Your task to perform on an android device: toggle pop-ups in chrome Image 0: 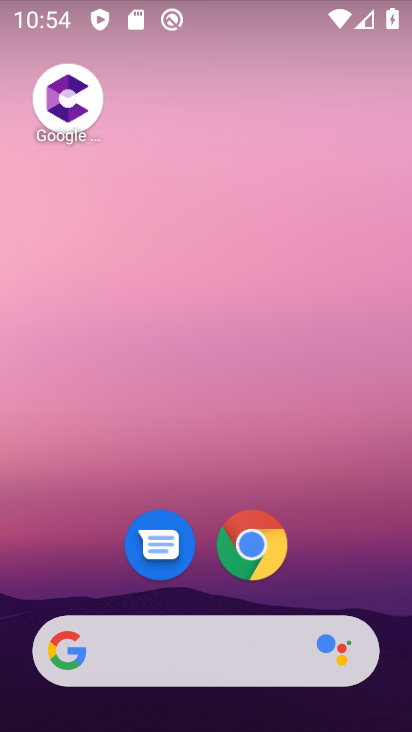
Step 0: click (251, 567)
Your task to perform on an android device: toggle pop-ups in chrome Image 1: 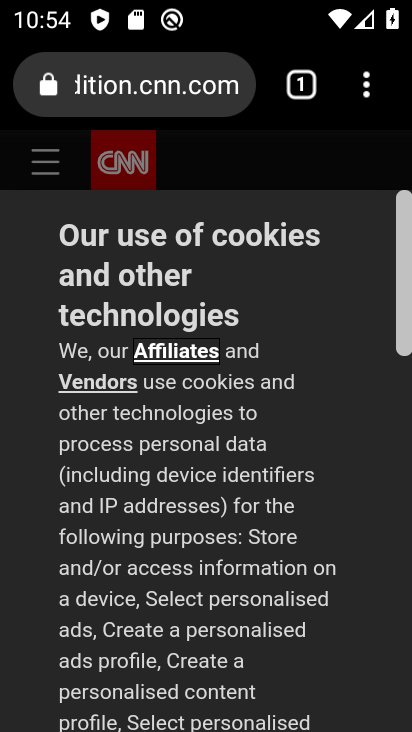
Step 1: click (363, 95)
Your task to perform on an android device: toggle pop-ups in chrome Image 2: 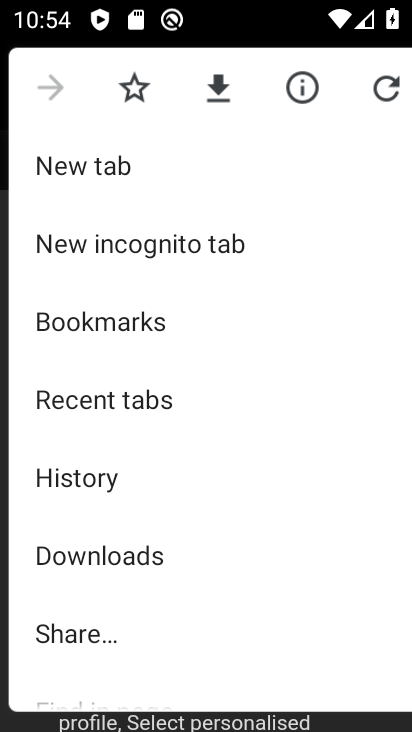
Step 2: press back button
Your task to perform on an android device: toggle pop-ups in chrome Image 3: 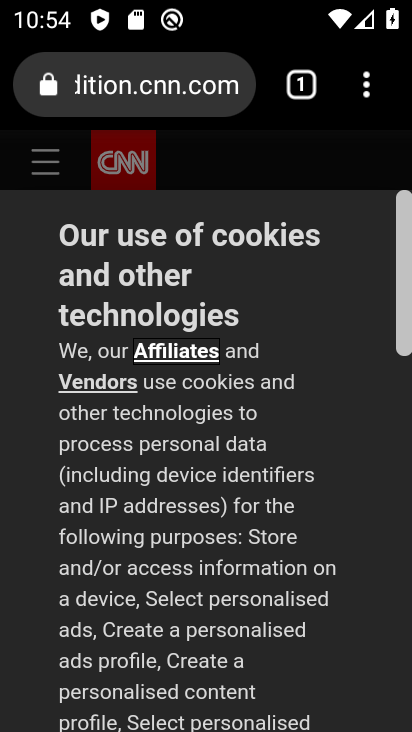
Step 3: click (364, 102)
Your task to perform on an android device: toggle pop-ups in chrome Image 4: 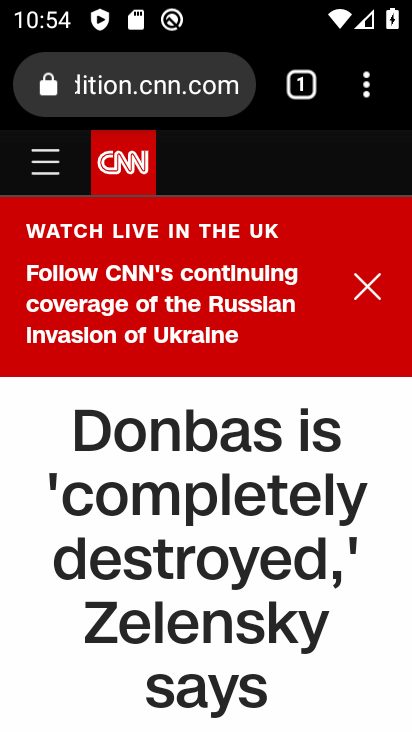
Step 4: click (375, 91)
Your task to perform on an android device: toggle pop-ups in chrome Image 5: 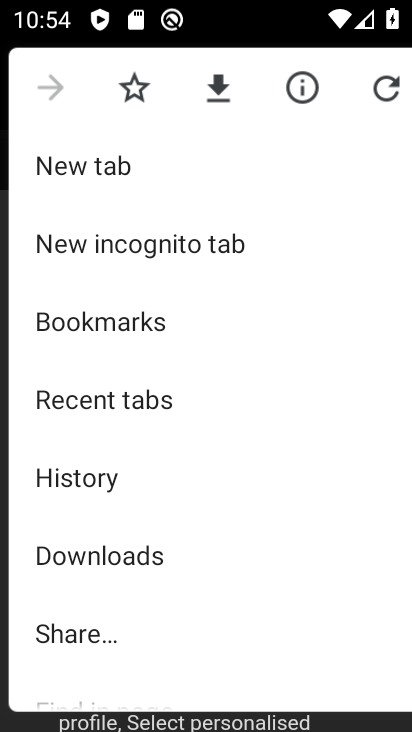
Step 5: drag from (173, 603) to (209, 129)
Your task to perform on an android device: toggle pop-ups in chrome Image 6: 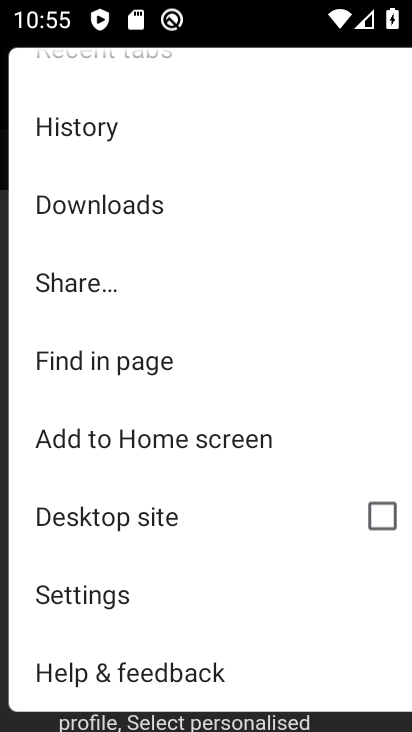
Step 6: click (102, 597)
Your task to perform on an android device: toggle pop-ups in chrome Image 7: 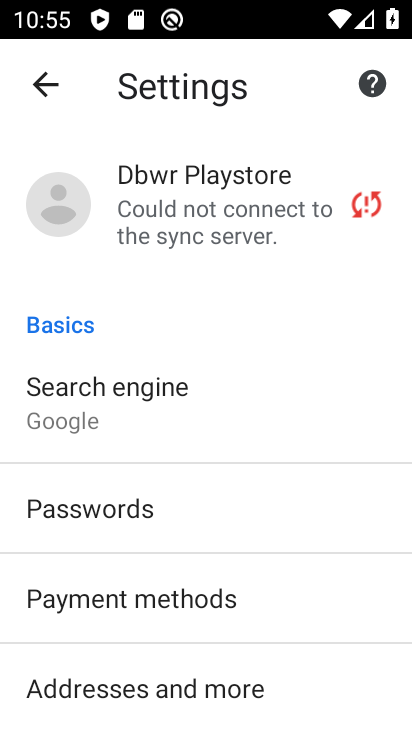
Step 7: drag from (136, 671) to (298, 27)
Your task to perform on an android device: toggle pop-ups in chrome Image 8: 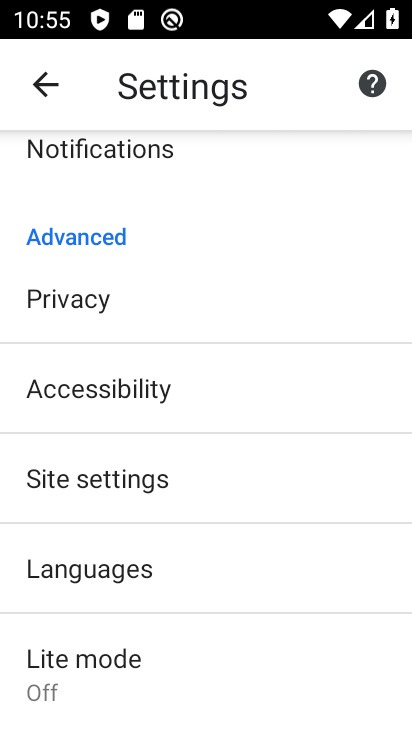
Step 8: drag from (114, 681) to (176, 194)
Your task to perform on an android device: toggle pop-ups in chrome Image 9: 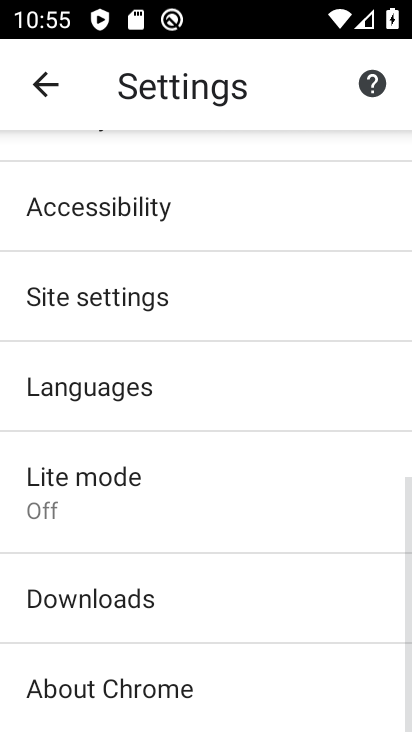
Step 9: drag from (92, 707) to (160, 357)
Your task to perform on an android device: toggle pop-ups in chrome Image 10: 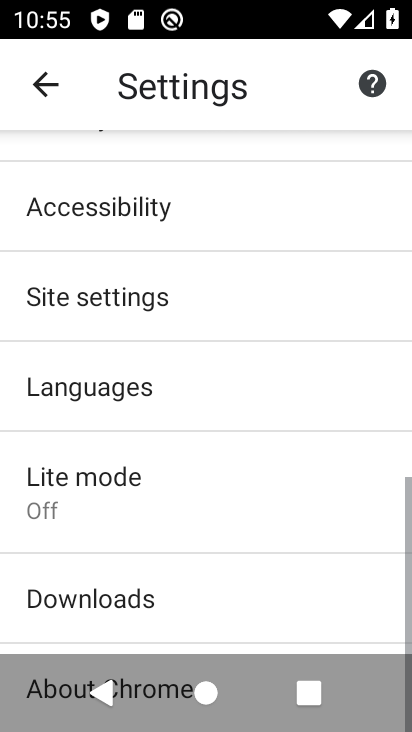
Step 10: click (136, 302)
Your task to perform on an android device: toggle pop-ups in chrome Image 11: 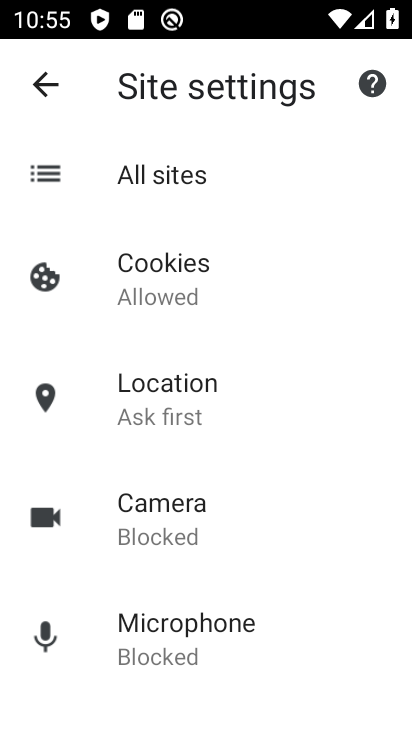
Step 11: drag from (210, 642) to (234, 190)
Your task to perform on an android device: toggle pop-ups in chrome Image 12: 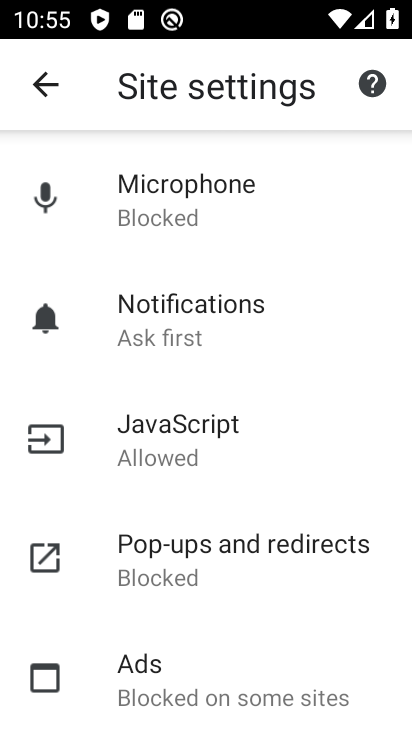
Step 12: click (204, 556)
Your task to perform on an android device: toggle pop-ups in chrome Image 13: 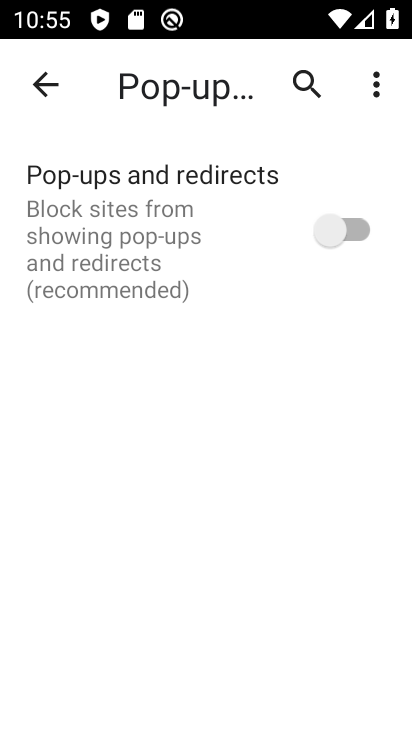
Step 13: click (364, 237)
Your task to perform on an android device: toggle pop-ups in chrome Image 14: 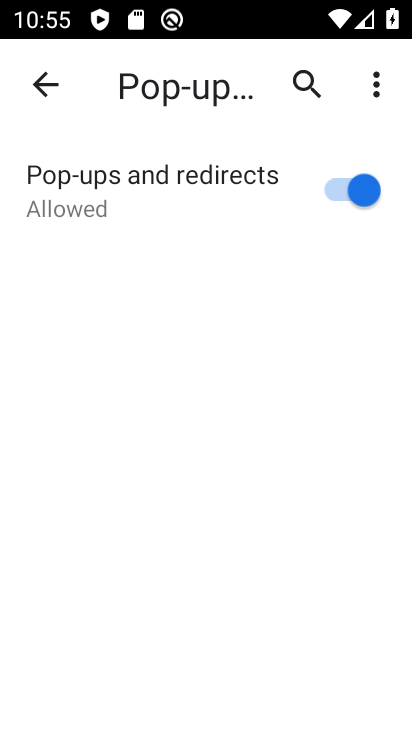
Step 14: task complete